Your task to perform on an android device: Go to Amazon Image 0: 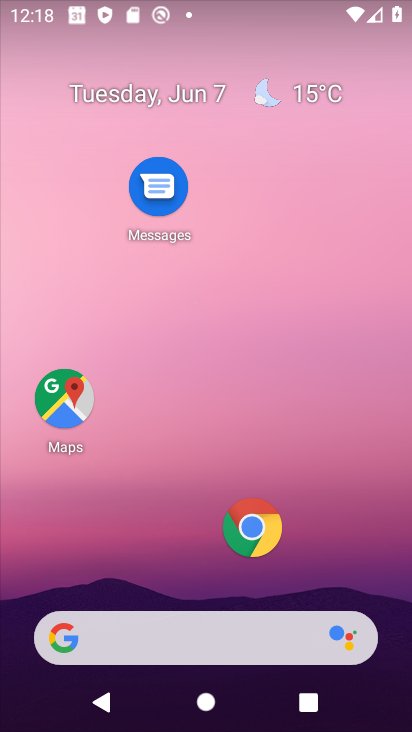
Step 0: drag from (187, 562) to (191, 268)
Your task to perform on an android device: Go to Amazon Image 1: 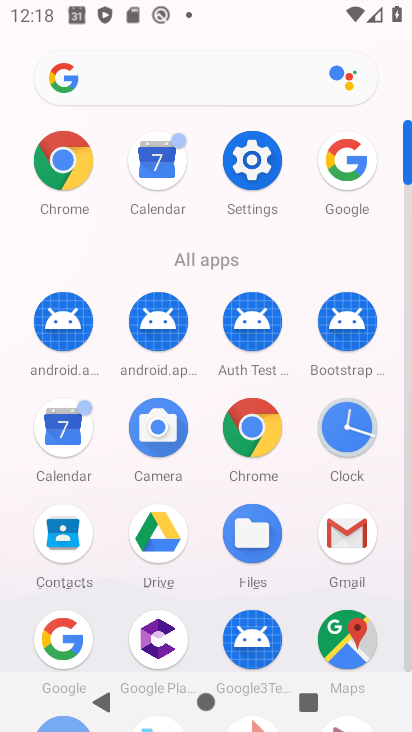
Step 1: click (49, 626)
Your task to perform on an android device: Go to Amazon Image 2: 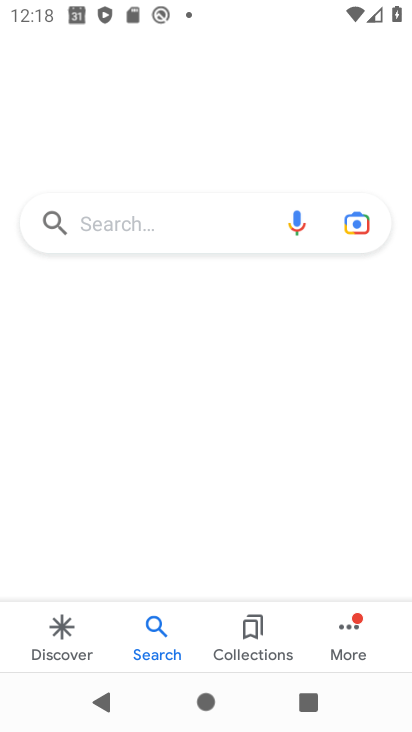
Step 2: click (168, 224)
Your task to perform on an android device: Go to Amazon Image 3: 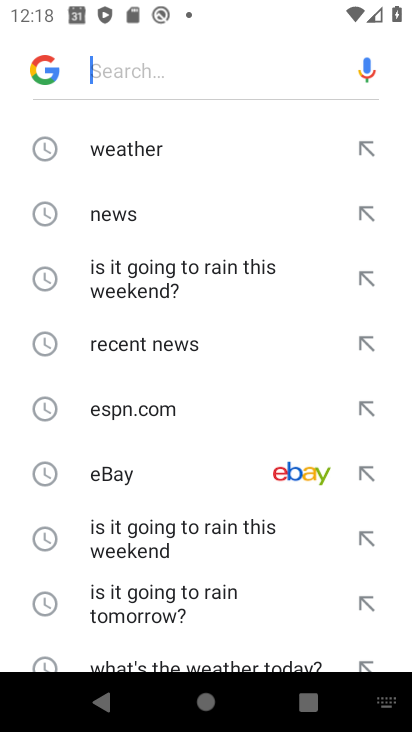
Step 3: drag from (102, 630) to (151, 226)
Your task to perform on an android device: Go to Amazon Image 4: 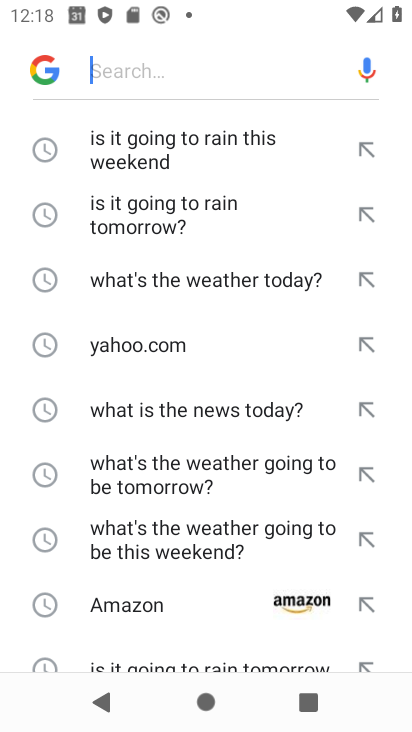
Step 4: click (147, 612)
Your task to perform on an android device: Go to Amazon Image 5: 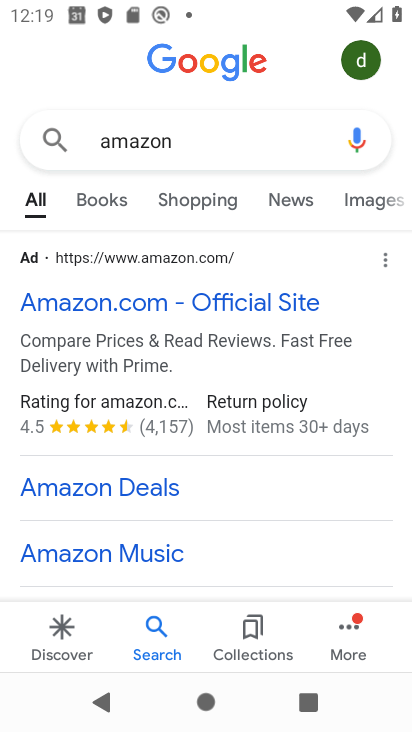
Step 5: click (122, 301)
Your task to perform on an android device: Go to Amazon Image 6: 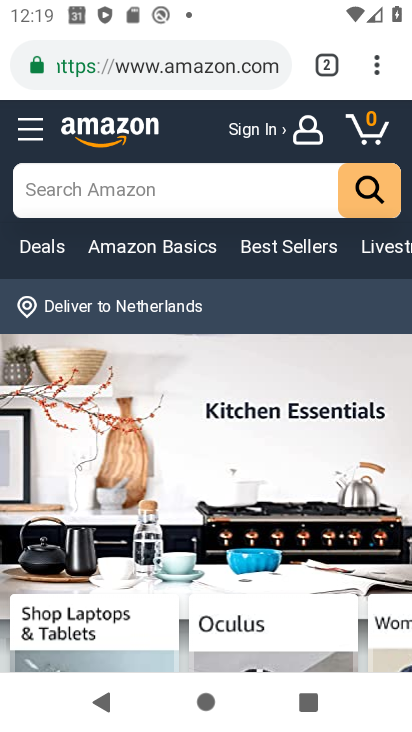
Step 6: task complete